Your task to perform on an android device: toggle improve location accuracy Image 0: 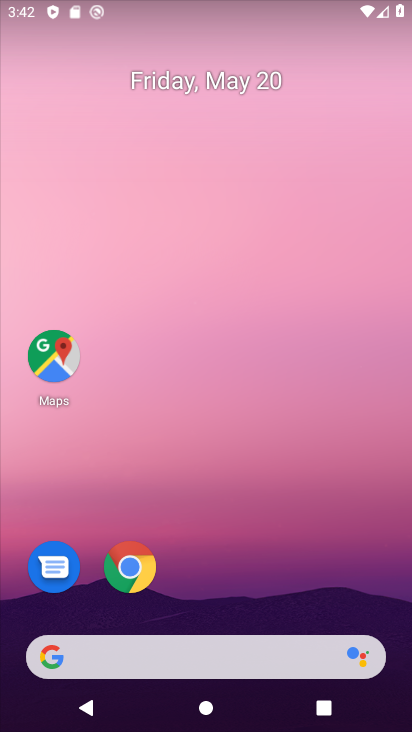
Step 0: drag from (191, 621) to (243, 10)
Your task to perform on an android device: toggle improve location accuracy Image 1: 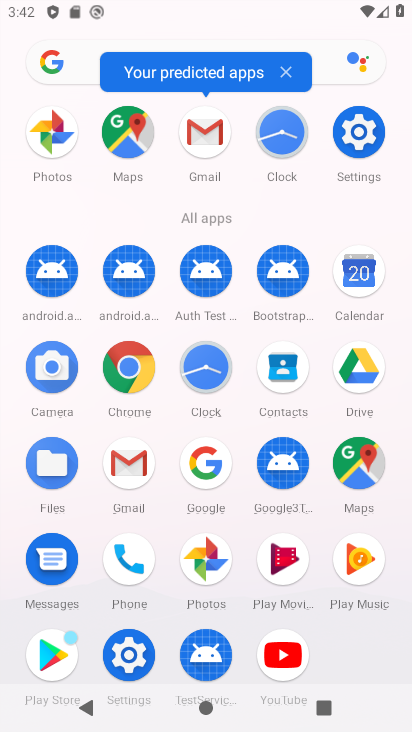
Step 1: click (116, 655)
Your task to perform on an android device: toggle improve location accuracy Image 2: 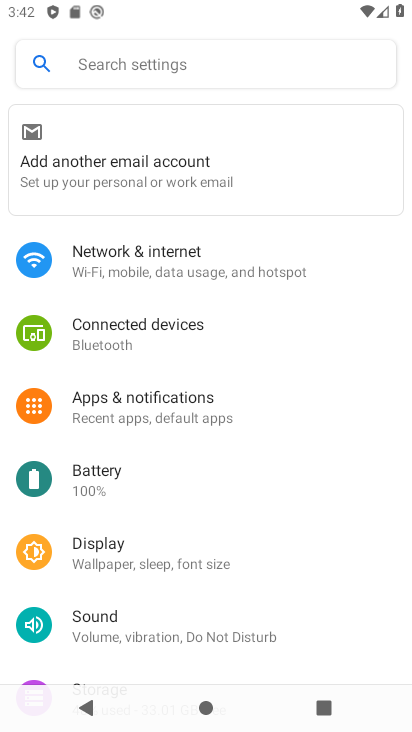
Step 2: drag from (116, 655) to (173, 294)
Your task to perform on an android device: toggle improve location accuracy Image 3: 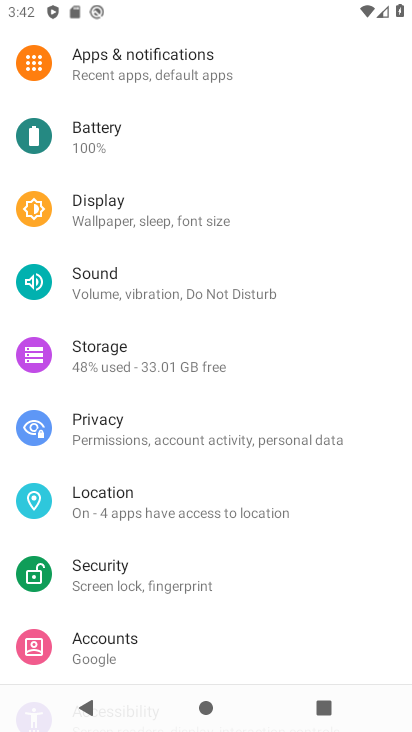
Step 3: click (115, 504)
Your task to perform on an android device: toggle improve location accuracy Image 4: 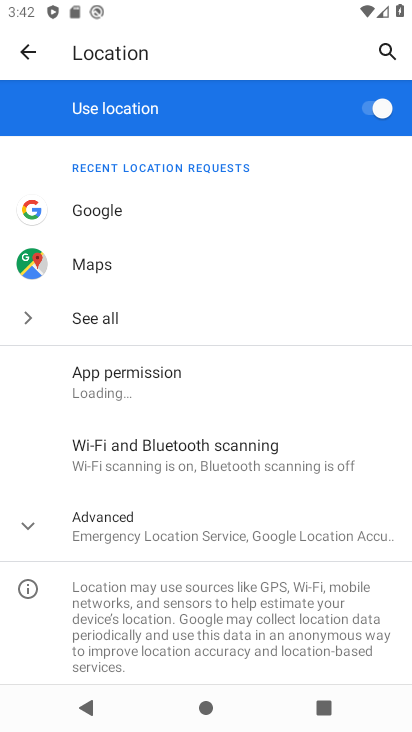
Step 4: click (115, 504)
Your task to perform on an android device: toggle improve location accuracy Image 5: 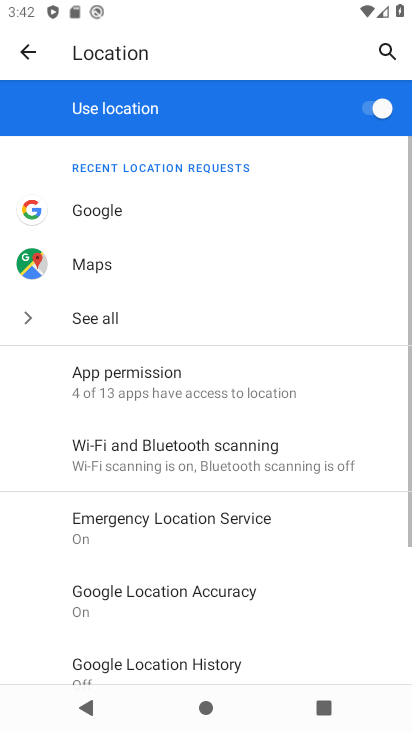
Step 5: click (146, 604)
Your task to perform on an android device: toggle improve location accuracy Image 6: 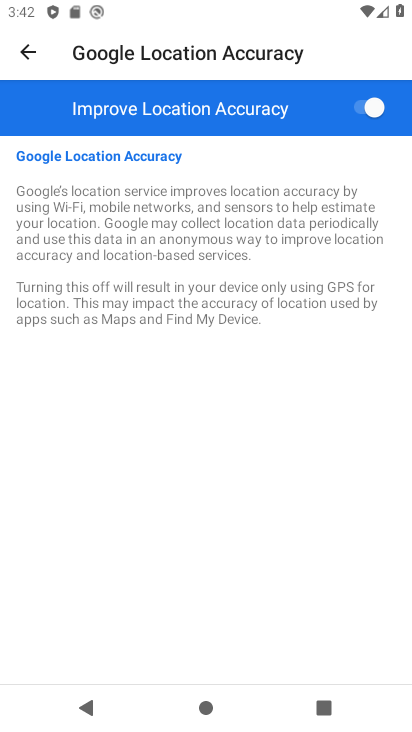
Step 6: click (369, 117)
Your task to perform on an android device: toggle improve location accuracy Image 7: 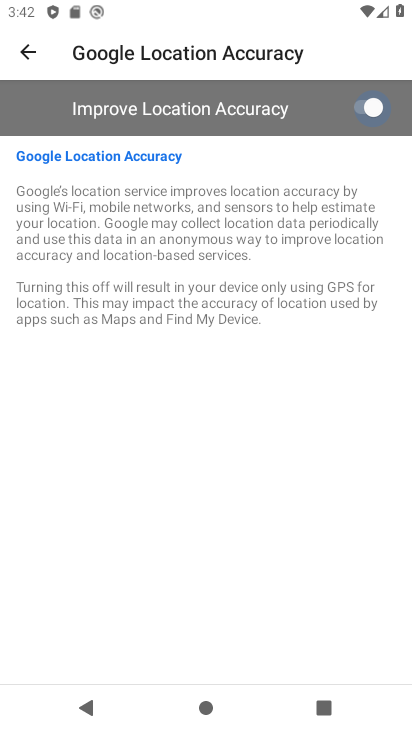
Step 7: click (369, 117)
Your task to perform on an android device: toggle improve location accuracy Image 8: 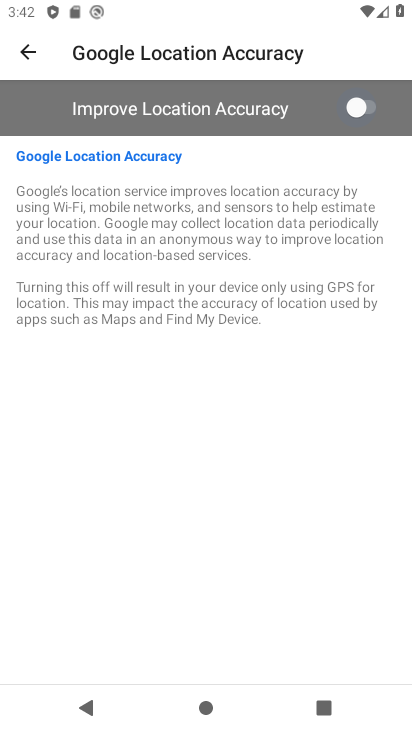
Step 8: click (369, 117)
Your task to perform on an android device: toggle improve location accuracy Image 9: 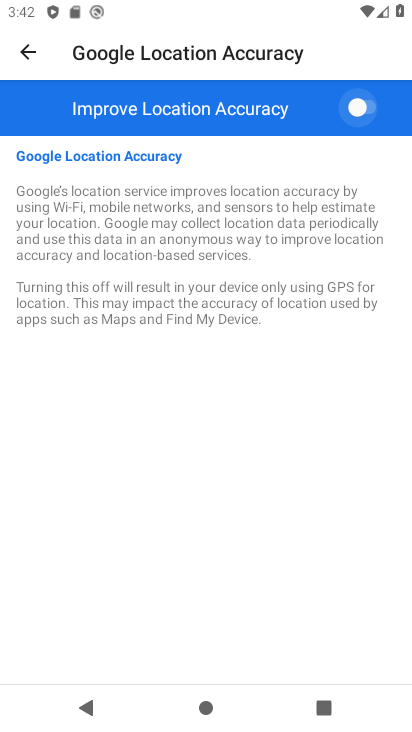
Step 9: click (369, 117)
Your task to perform on an android device: toggle improve location accuracy Image 10: 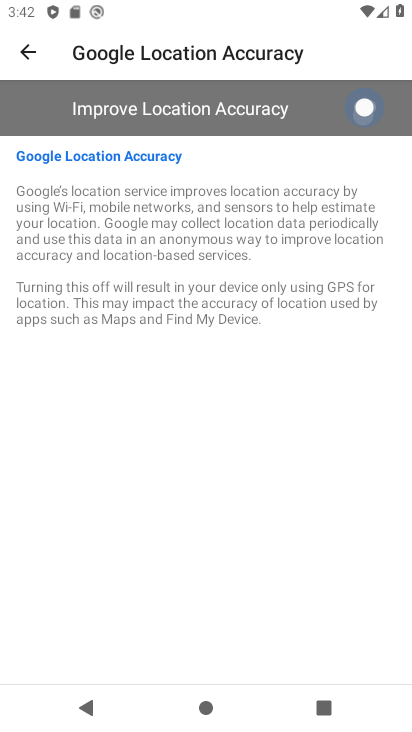
Step 10: click (369, 117)
Your task to perform on an android device: toggle improve location accuracy Image 11: 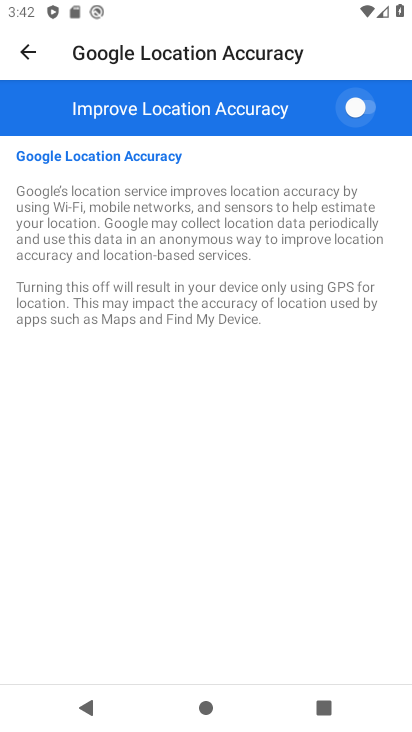
Step 11: click (369, 117)
Your task to perform on an android device: toggle improve location accuracy Image 12: 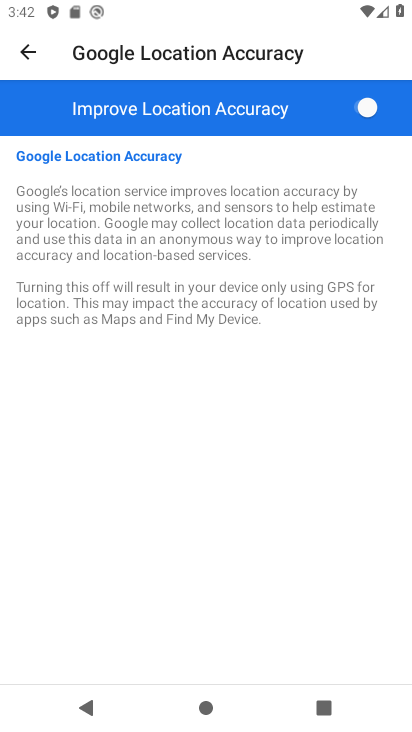
Step 12: click (369, 117)
Your task to perform on an android device: toggle improve location accuracy Image 13: 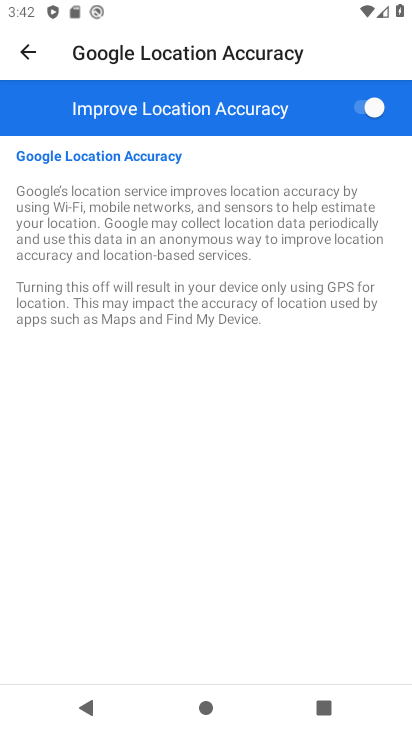
Step 13: task complete